Your task to perform on an android device: turn pop-ups on in chrome Image 0: 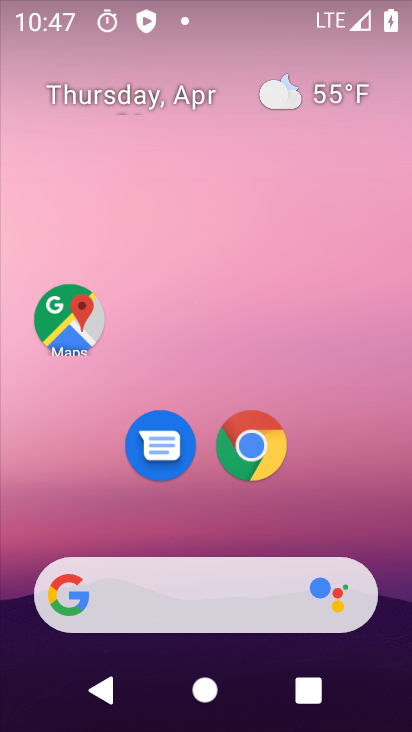
Step 0: click (250, 456)
Your task to perform on an android device: turn pop-ups on in chrome Image 1: 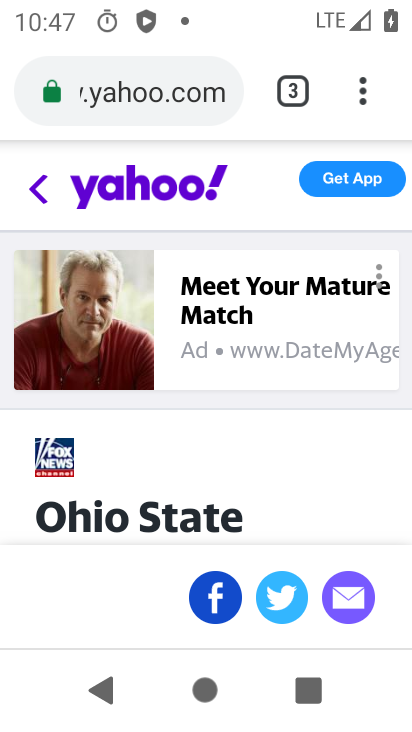
Step 1: click (361, 97)
Your task to perform on an android device: turn pop-ups on in chrome Image 2: 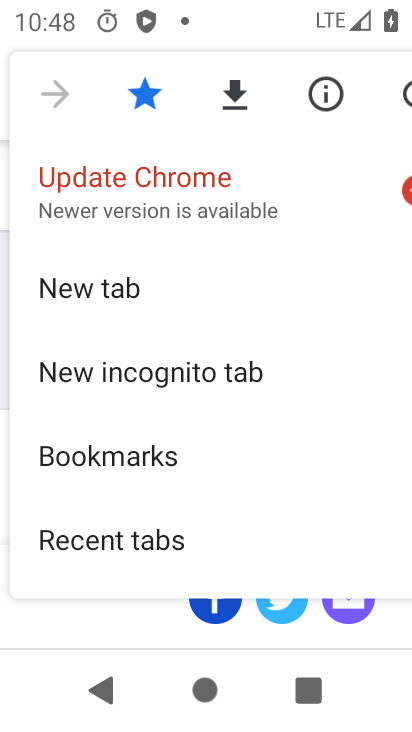
Step 2: drag from (278, 494) to (278, 20)
Your task to perform on an android device: turn pop-ups on in chrome Image 3: 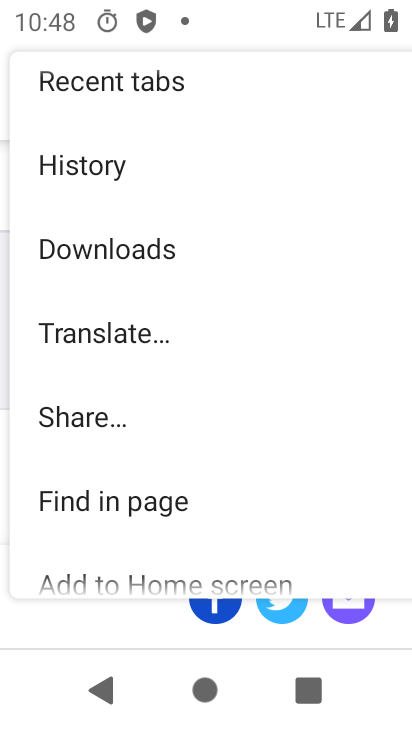
Step 3: drag from (136, 479) to (156, 19)
Your task to perform on an android device: turn pop-ups on in chrome Image 4: 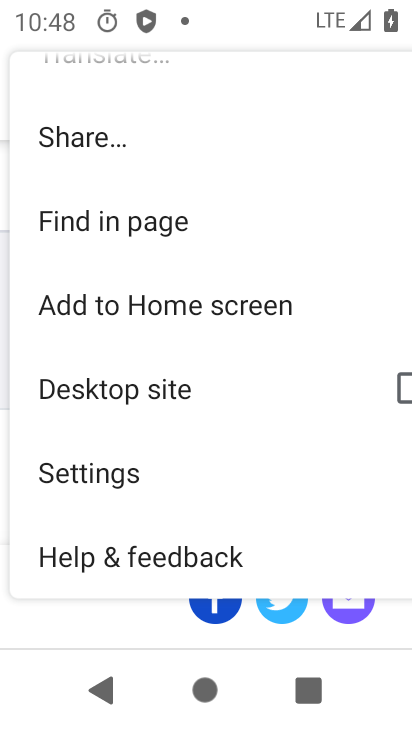
Step 4: click (71, 476)
Your task to perform on an android device: turn pop-ups on in chrome Image 5: 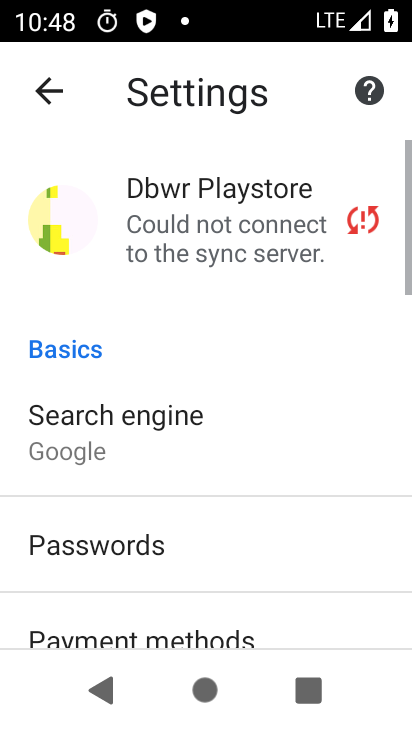
Step 5: drag from (215, 558) to (205, 125)
Your task to perform on an android device: turn pop-ups on in chrome Image 6: 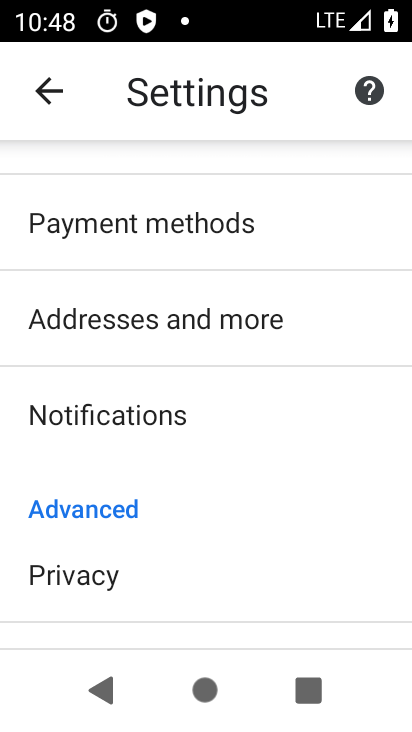
Step 6: drag from (185, 526) to (164, 334)
Your task to perform on an android device: turn pop-ups on in chrome Image 7: 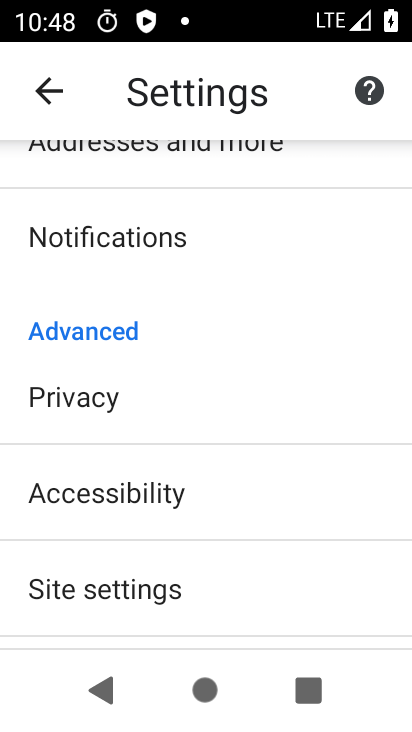
Step 7: click (163, 590)
Your task to perform on an android device: turn pop-ups on in chrome Image 8: 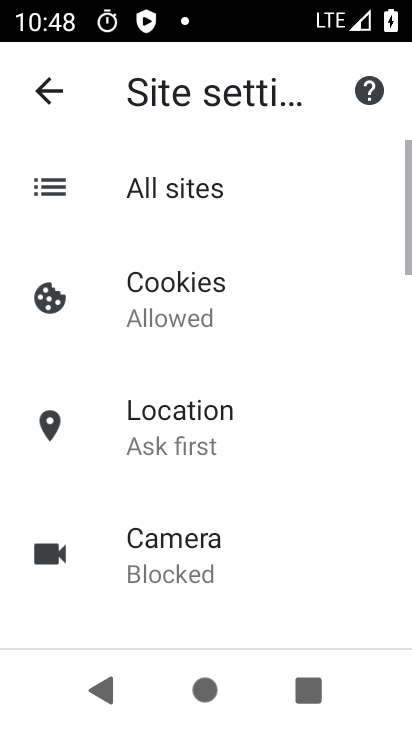
Step 8: drag from (227, 508) to (205, 129)
Your task to perform on an android device: turn pop-ups on in chrome Image 9: 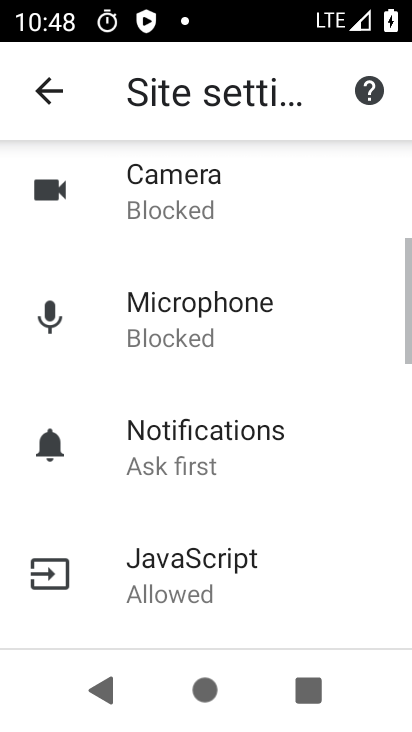
Step 9: drag from (277, 492) to (265, 295)
Your task to perform on an android device: turn pop-ups on in chrome Image 10: 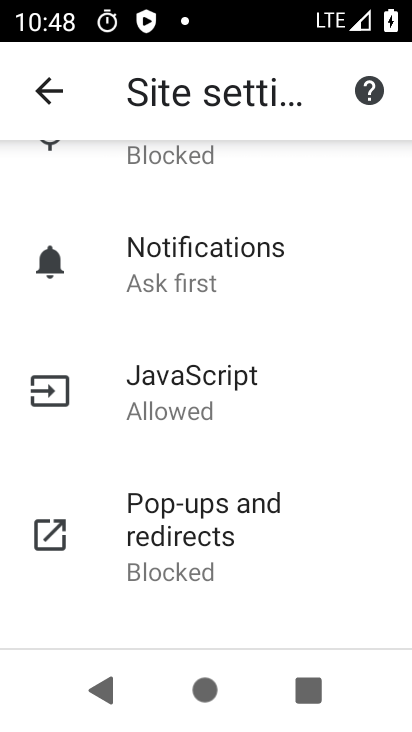
Step 10: click (191, 536)
Your task to perform on an android device: turn pop-ups on in chrome Image 11: 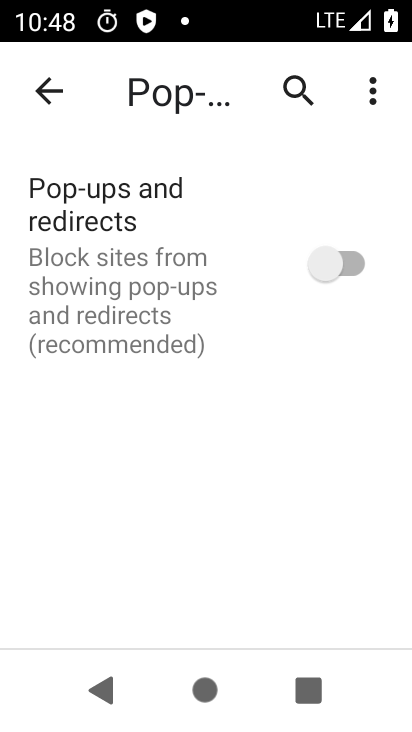
Step 11: click (332, 265)
Your task to perform on an android device: turn pop-ups on in chrome Image 12: 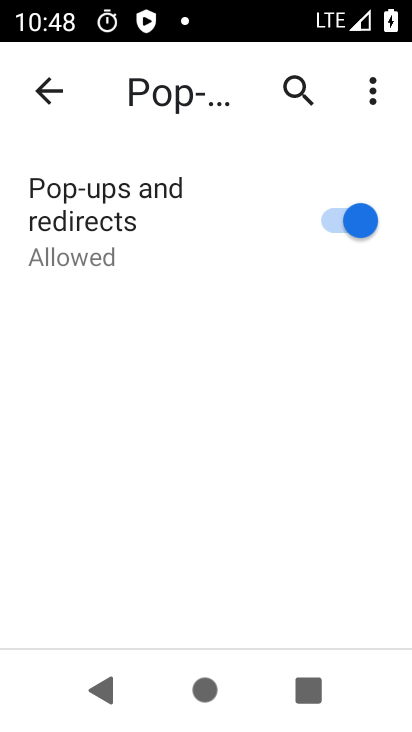
Step 12: task complete